Your task to perform on an android device: empty trash in google photos Image 0: 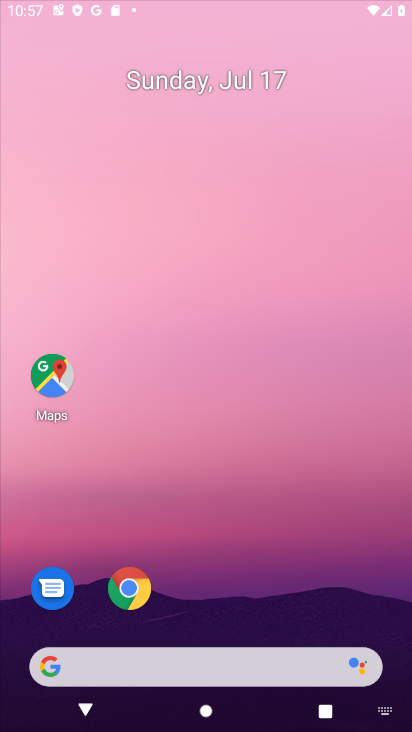
Step 0: press home button
Your task to perform on an android device: empty trash in google photos Image 1: 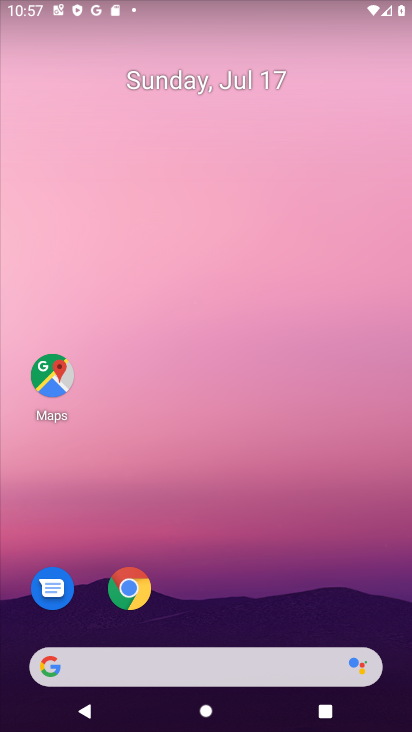
Step 1: drag from (215, 630) to (207, 83)
Your task to perform on an android device: empty trash in google photos Image 2: 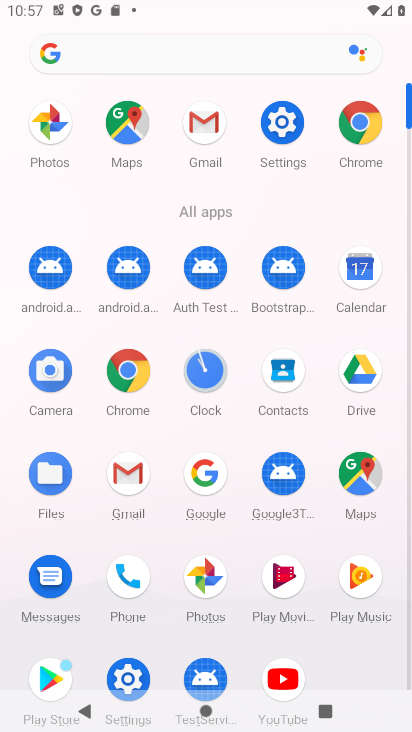
Step 2: click (204, 571)
Your task to perform on an android device: empty trash in google photos Image 3: 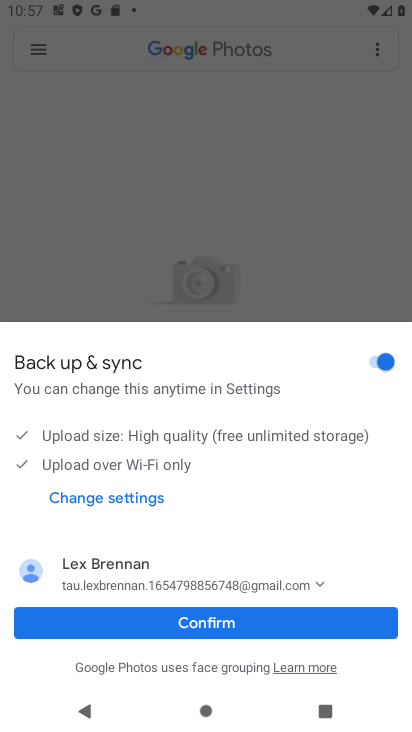
Step 3: click (202, 622)
Your task to perform on an android device: empty trash in google photos Image 4: 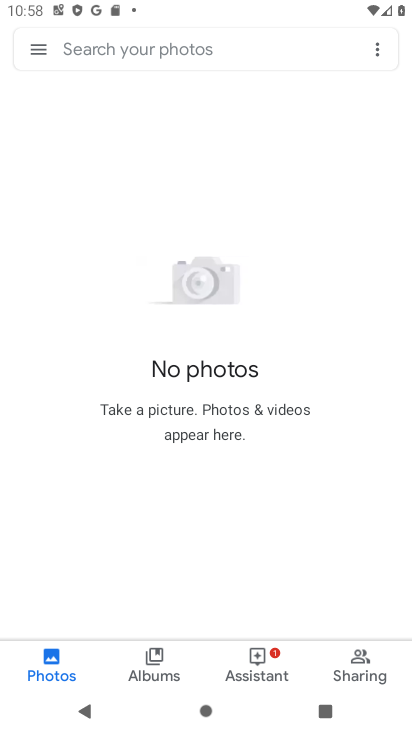
Step 4: click (36, 43)
Your task to perform on an android device: empty trash in google photos Image 5: 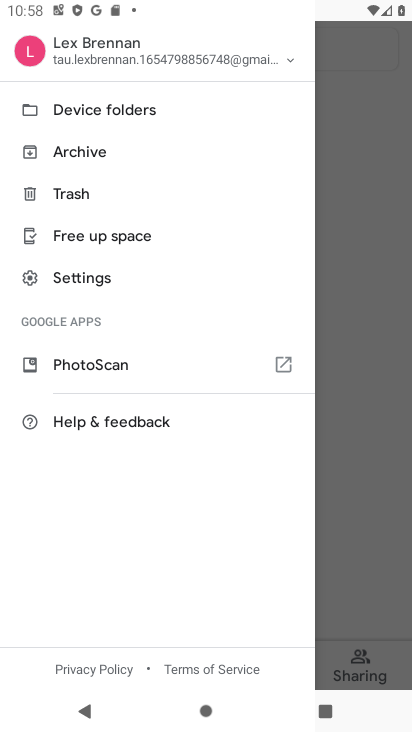
Step 5: click (91, 189)
Your task to perform on an android device: empty trash in google photos Image 6: 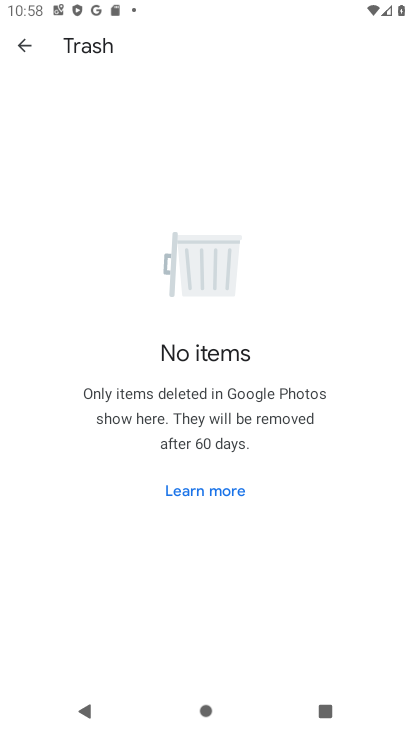
Step 6: task complete